Your task to perform on an android device: Open settings on Google Maps Image 0: 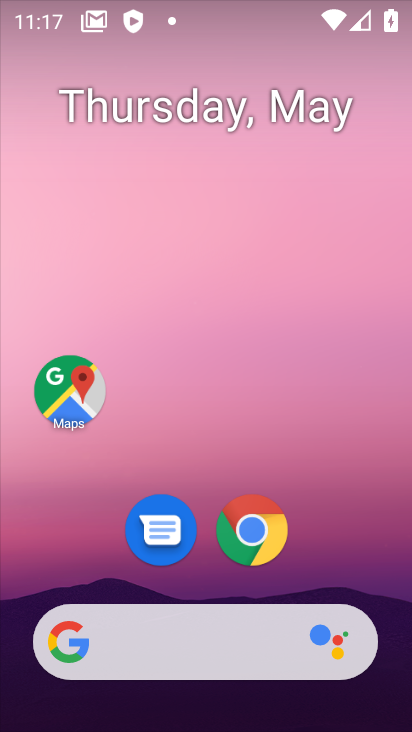
Step 0: click (65, 388)
Your task to perform on an android device: Open settings on Google Maps Image 1: 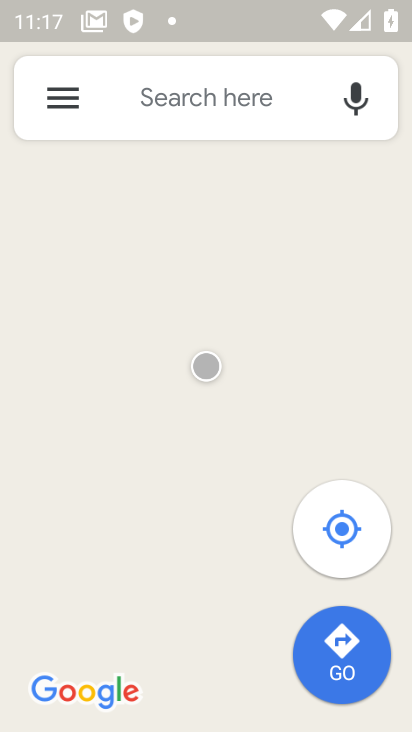
Step 1: click (64, 100)
Your task to perform on an android device: Open settings on Google Maps Image 2: 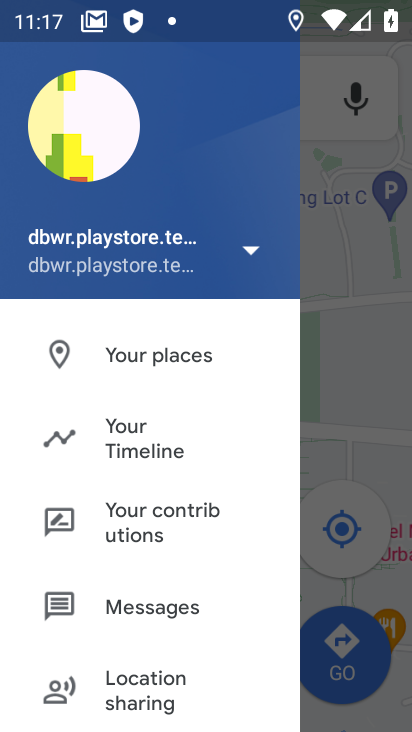
Step 2: task complete